Your task to perform on an android device: change the clock display to digital Image 0: 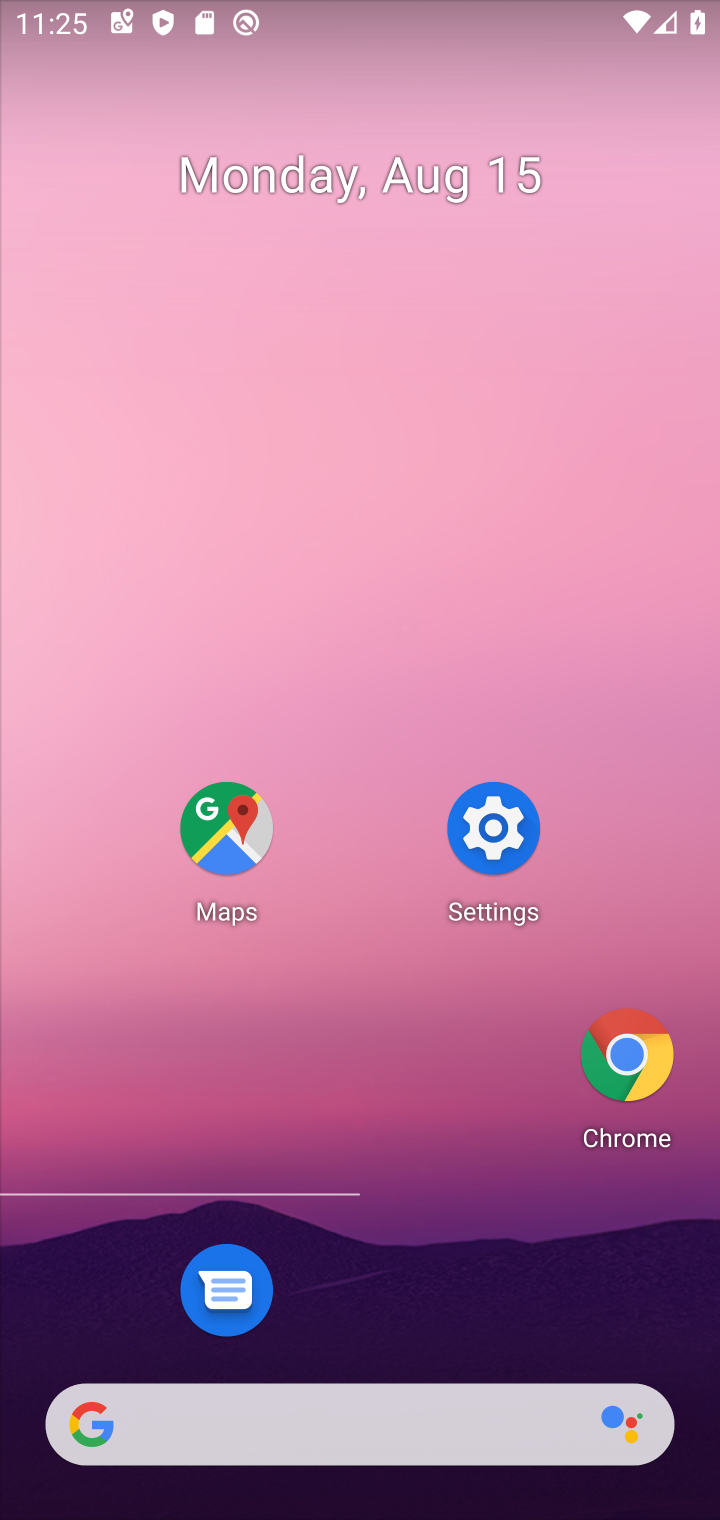
Step 0: drag from (364, 1413) to (392, 62)
Your task to perform on an android device: change the clock display to digital Image 1: 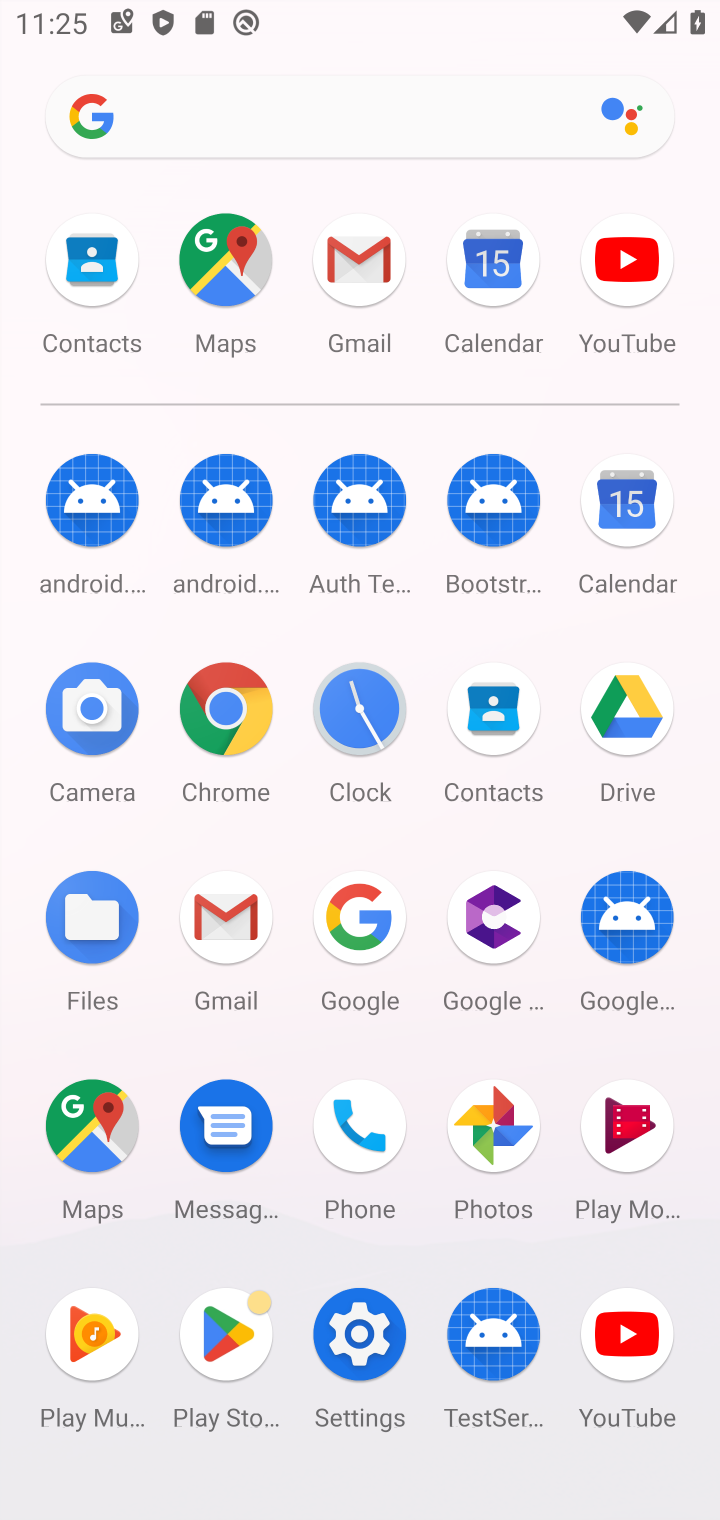
Step 1: click (342, 708)
Your task to perform on an android device: change the clock display to digital Image 2: 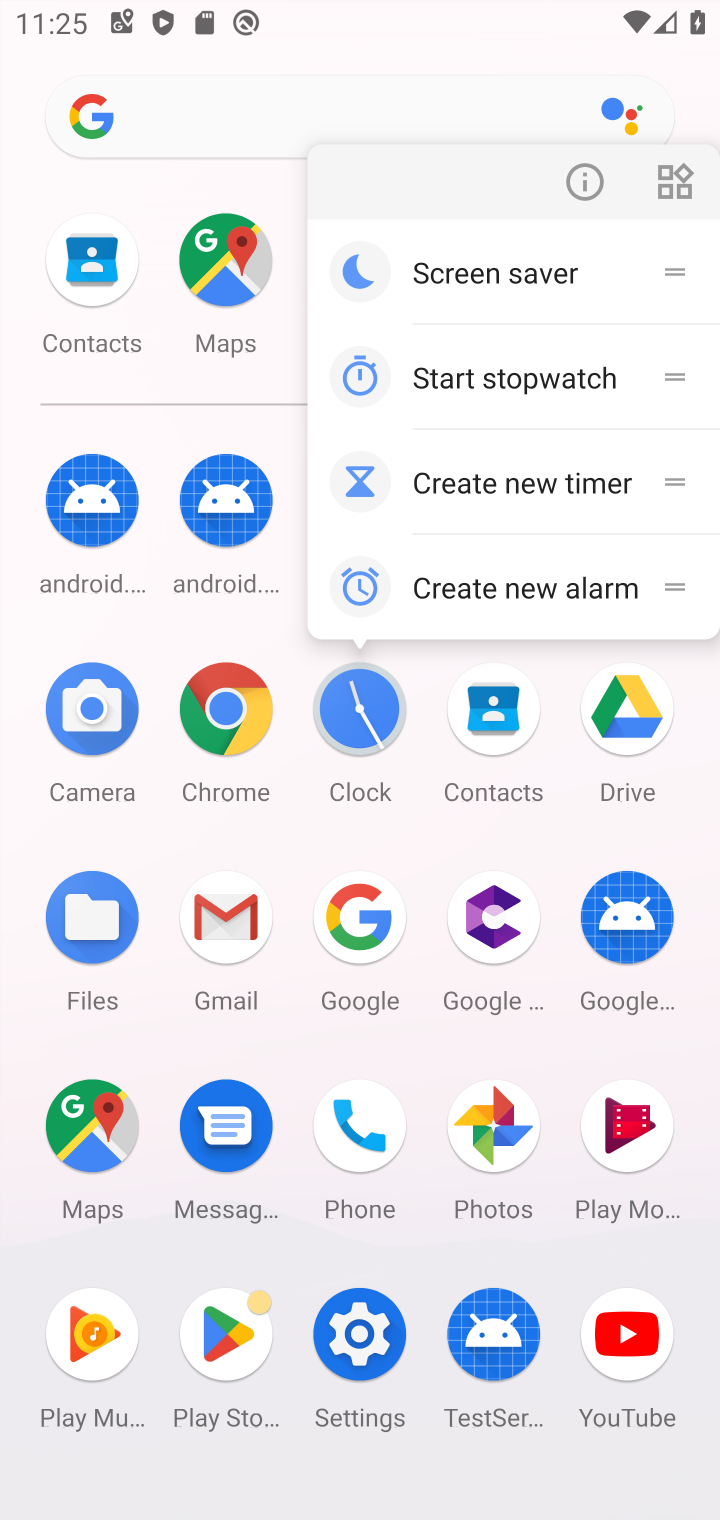
Step 2: click (342, 714)
Your task to perform on an android device: change the clock display to digital Image 3: 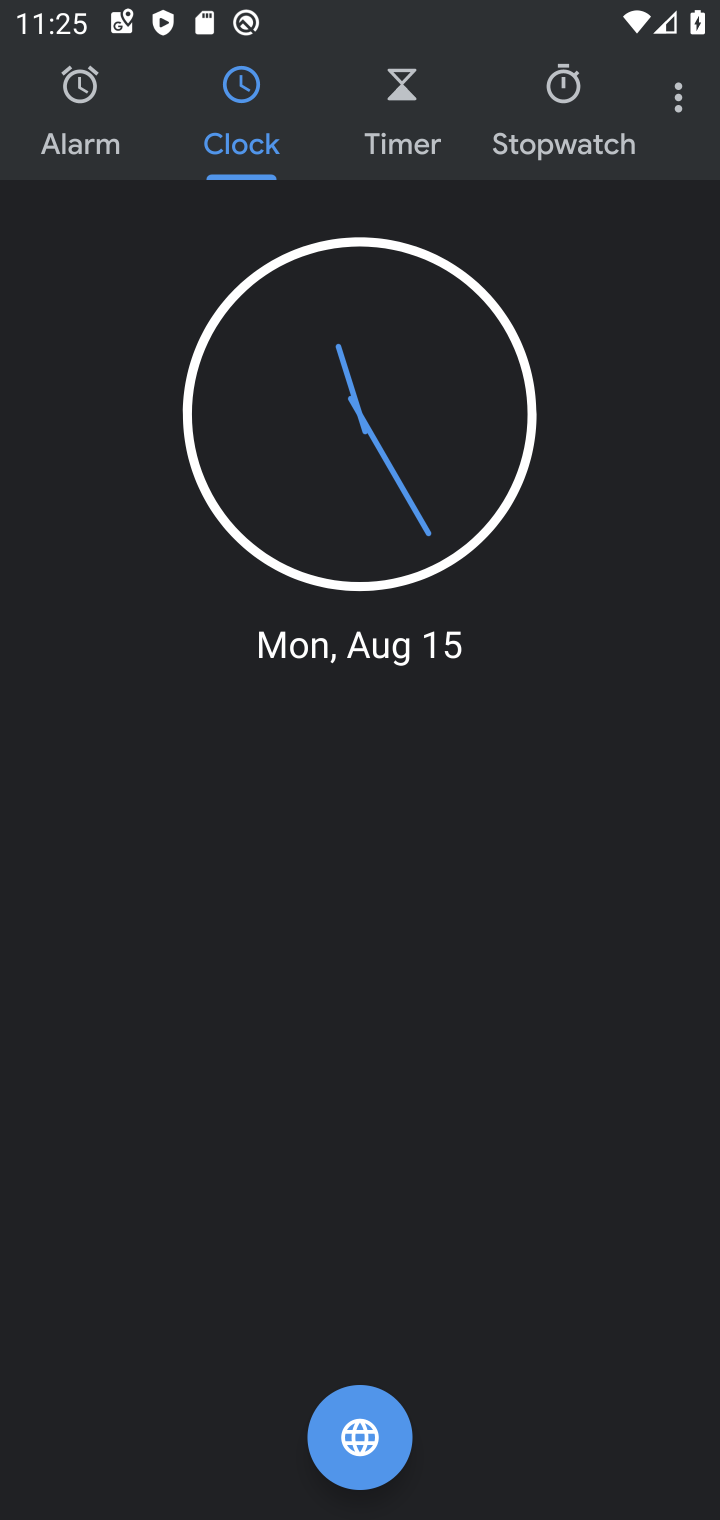
Step 3: click (680, 96)
Your task to perform on an android device: change the clock display to digital Image 4: 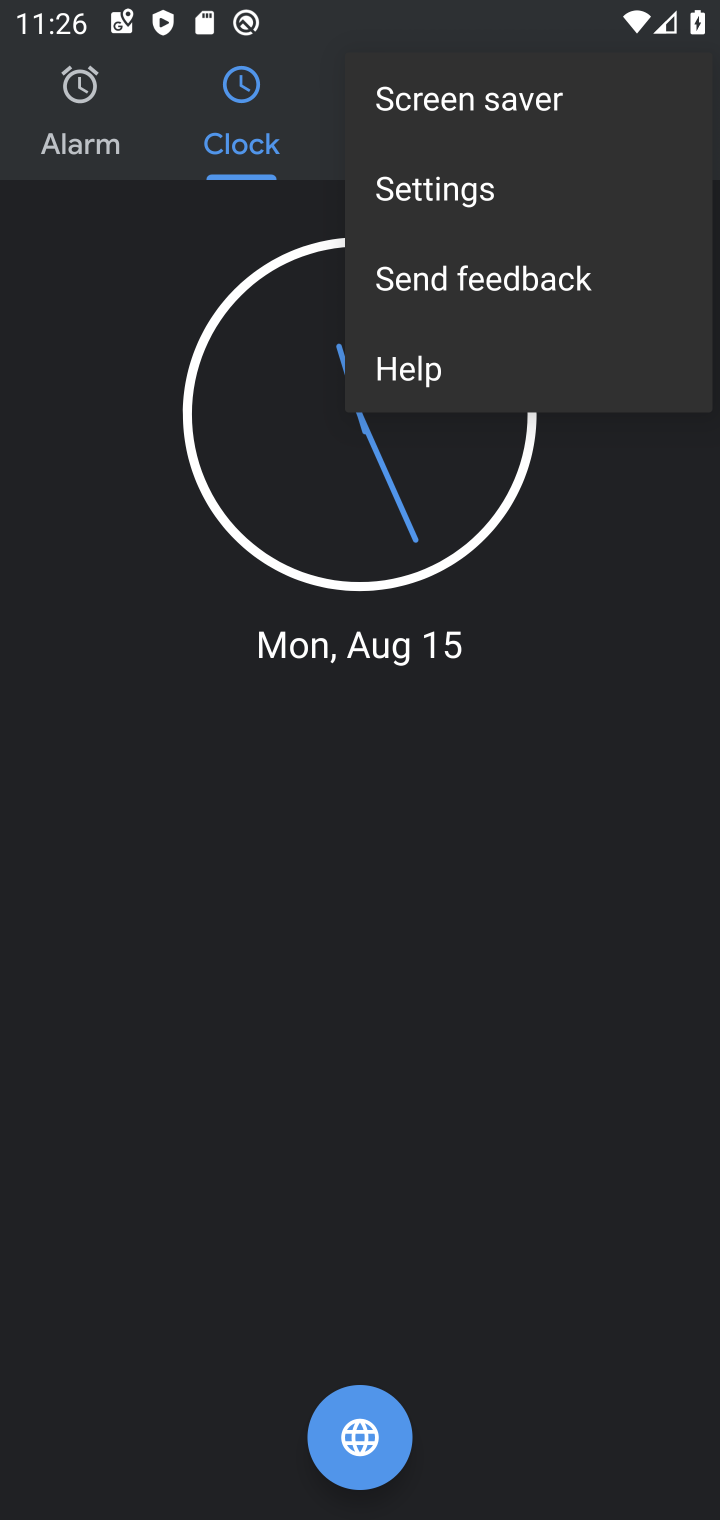
Step 4: click (488, 193)
Your task to perform on an android device: change the clock display to digital Image 5: 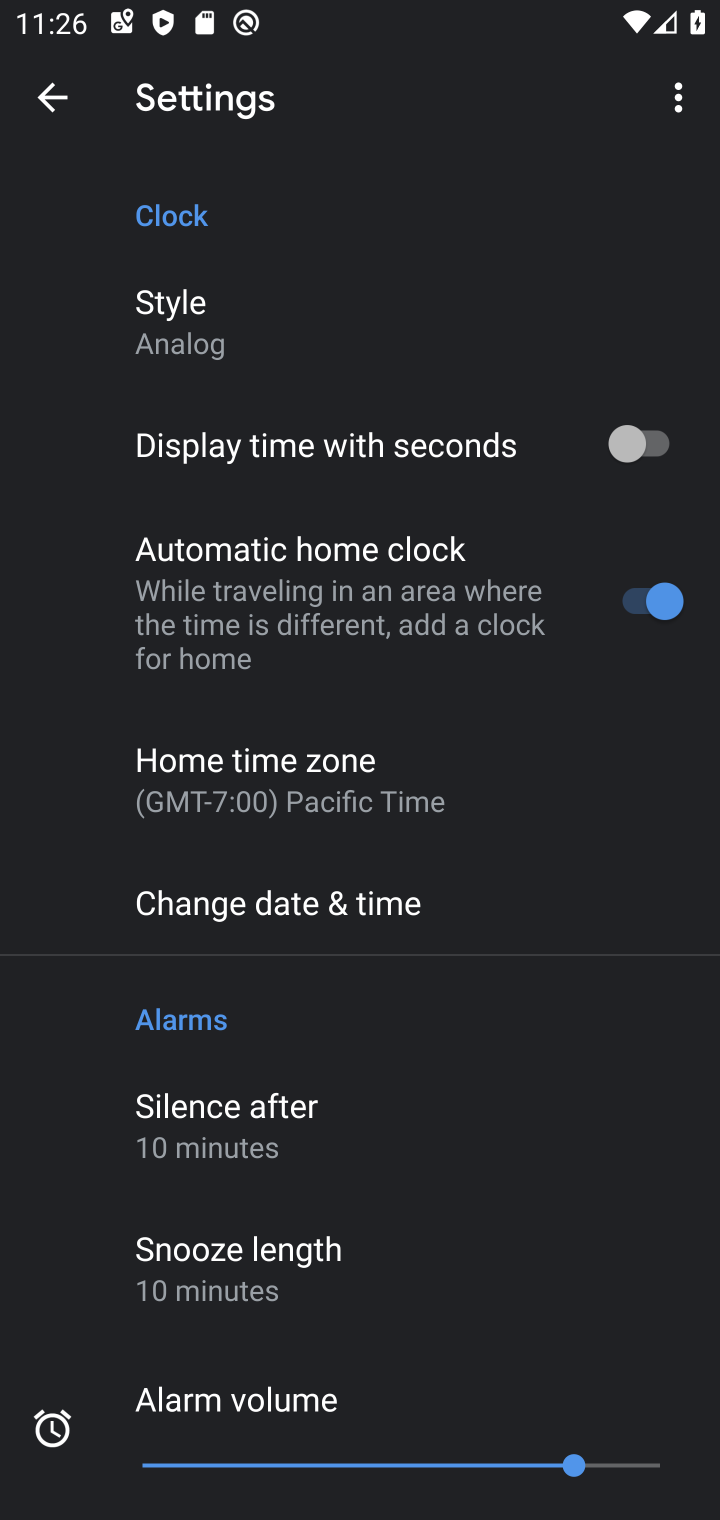
Step 5: click (169, 346)
Your task to perform on an android device: change the clock display to digital Image 6: 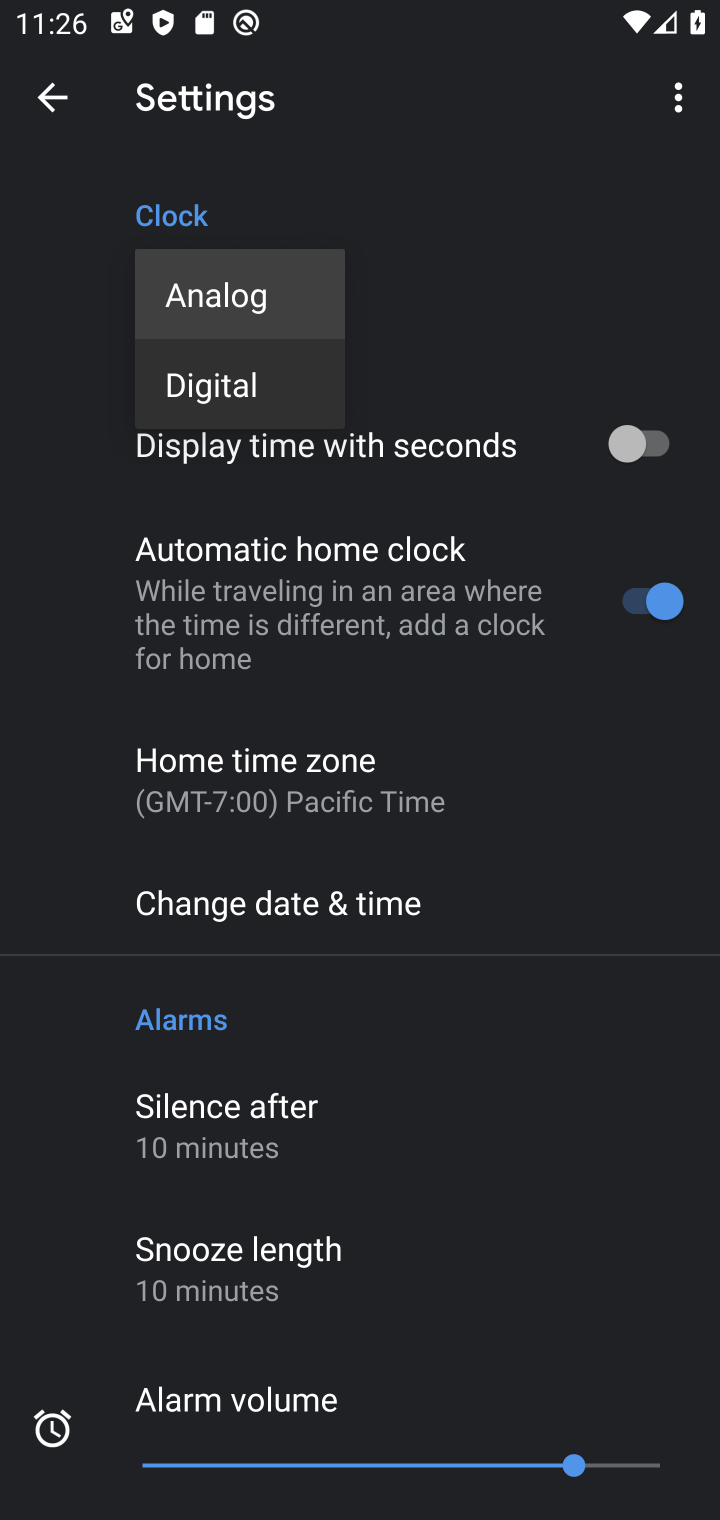
Step 6: click (258, 397)
Your task to perform on an android device: change the clock display to digital Image 7: 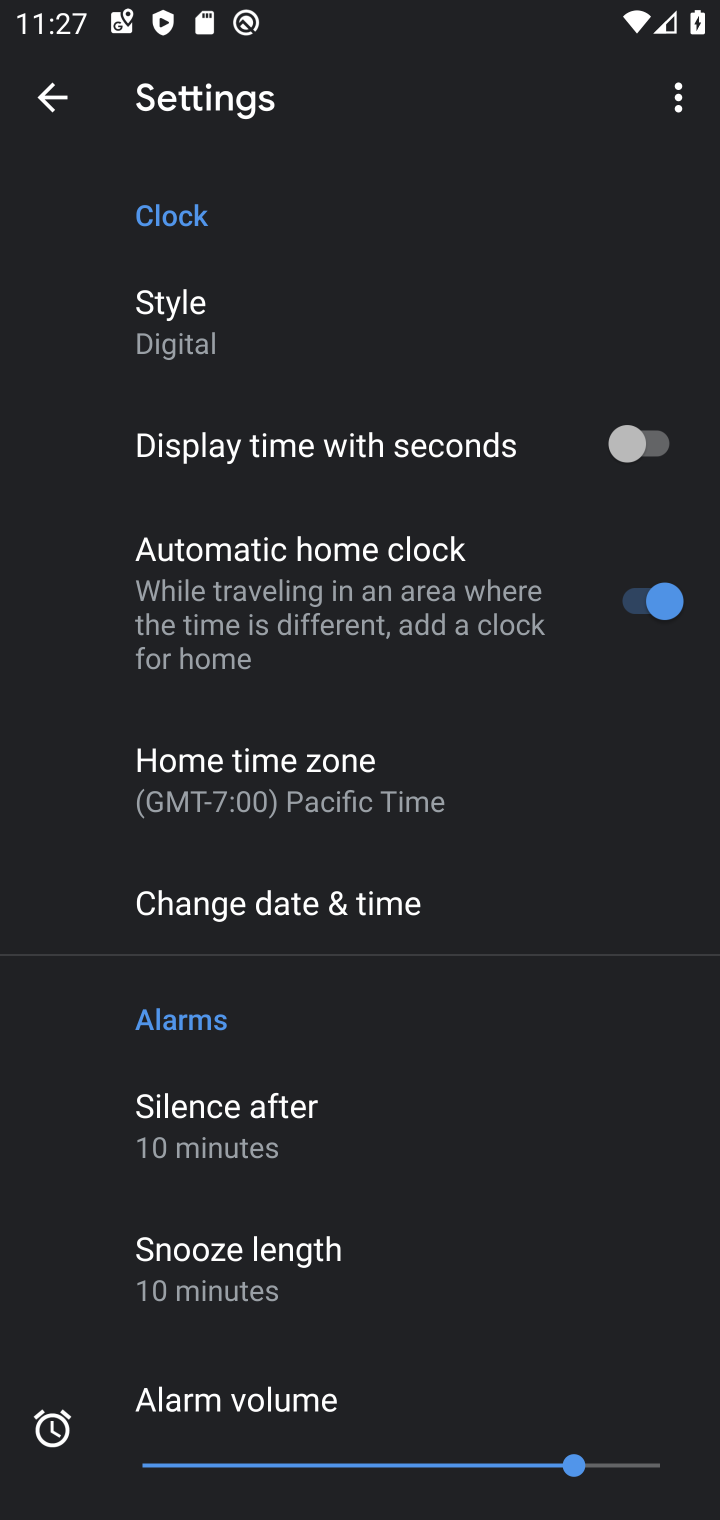
Step 7: task complete